Your task to perform on an android device: Go to Reddit.com Image 0: 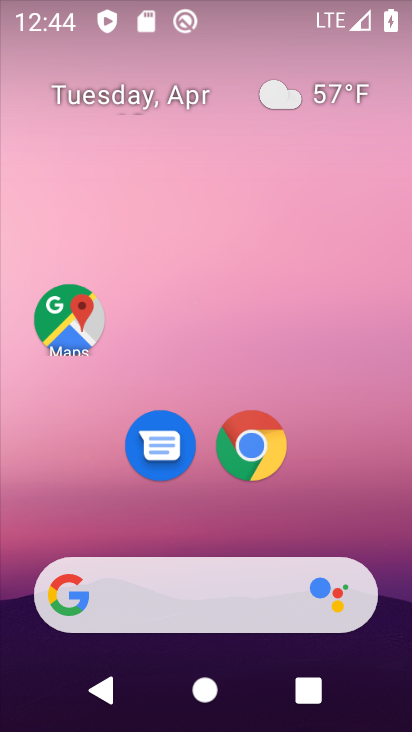
Step 0: click (256, 444)
Your task to perform on an android device: Go to Reddit.com Image 1: 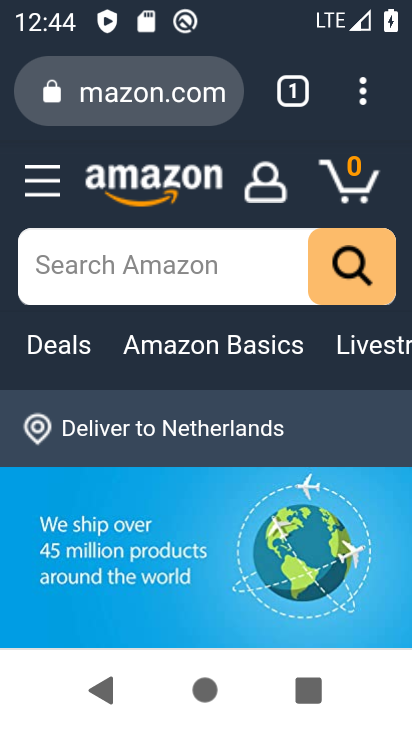
Step 1: click (364, 95)
Your task to perform on an android device: Go to Reddit.com Image 2: 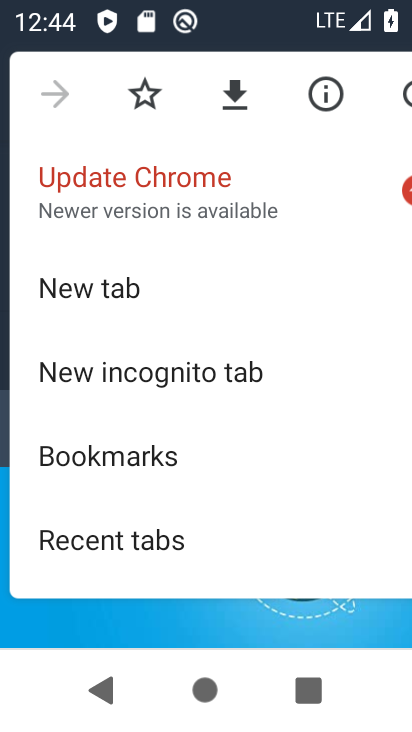
Step 2: click (155, 288)
Your task to perform on an android device: Go to Reddit.com Image 3: 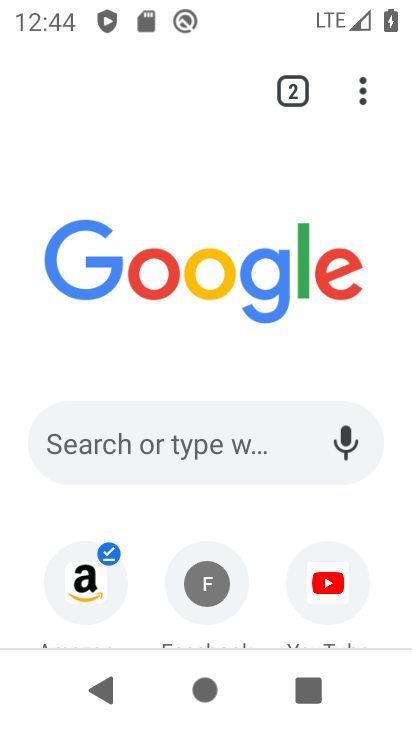
Step 3: click (129, 439)
Your task to perform on an android device: Go to Reddit.com Image 4: 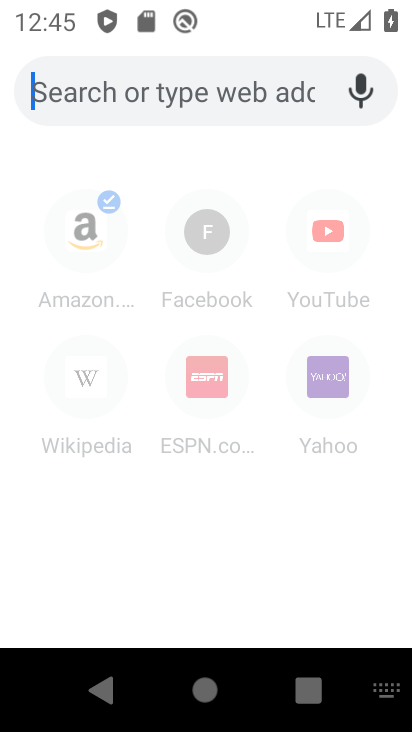
Step 4: type "Reddit.com"
Your task to perform on an android device: Go to Reddit.com Image 5: 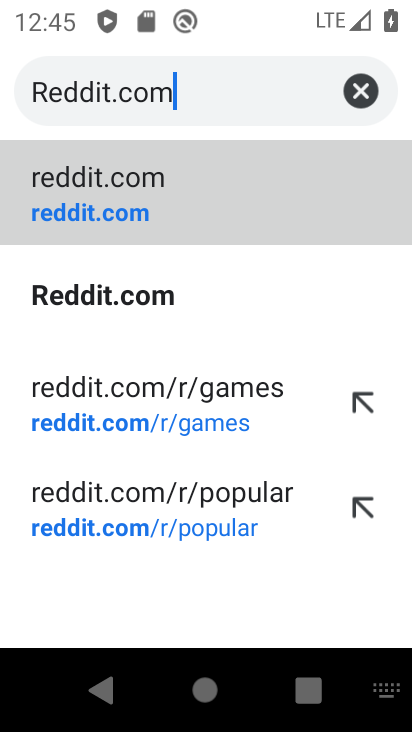
Step 5: click (132, 218)
Your task to perform on an android device: Go to Reddit.com Image 6: 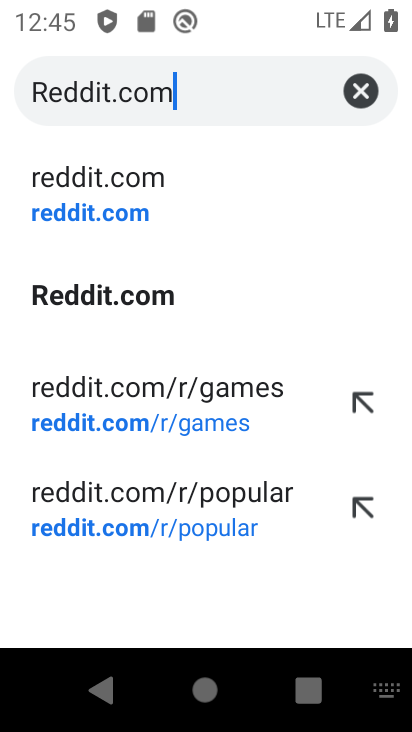
Step 6: click (182, 421)
Your task to perform on an android device: Go to Reddit.com Image 7: 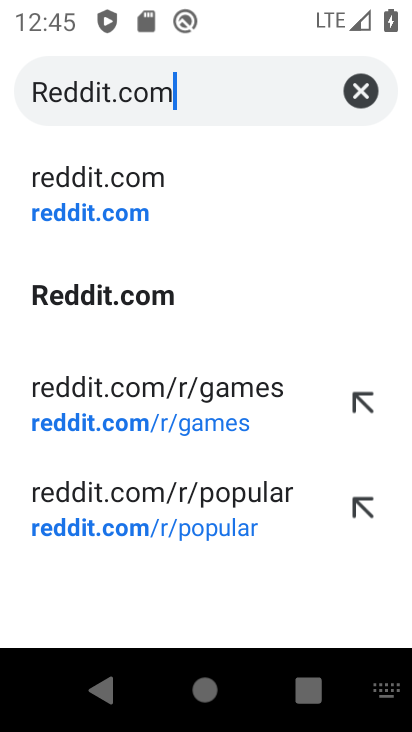
Step 7: click (182, 417)
Your task to perform on an android device: Go to Reddit.com Image 8: 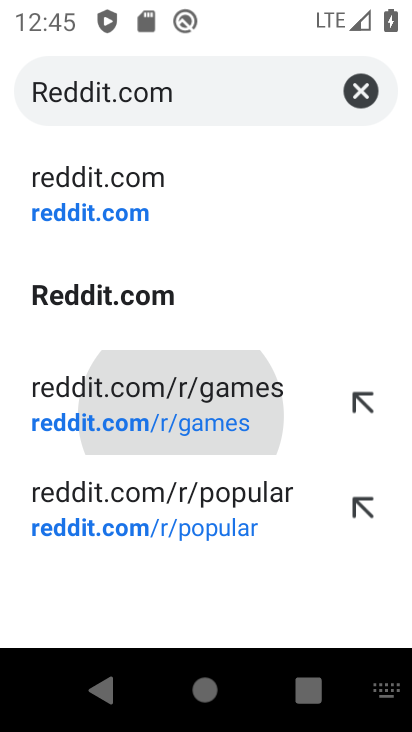
Step 8: click (183, 421)
Your task to perform on an android device: Go to Reddit.com Image 9: 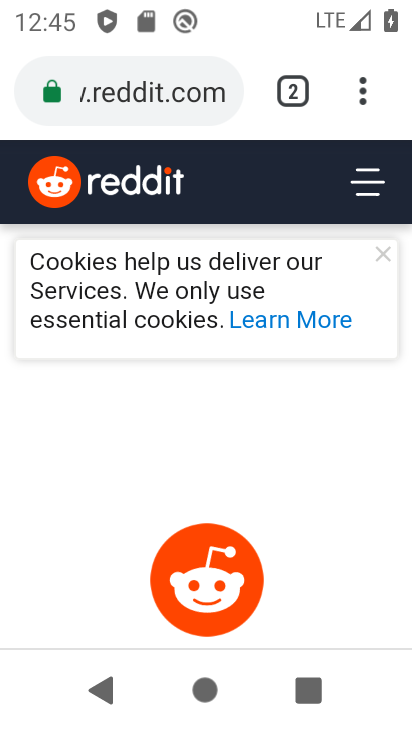
Step 9: task complete